Your task to perform on an android device: allow cookies in the chrome app Image 0: 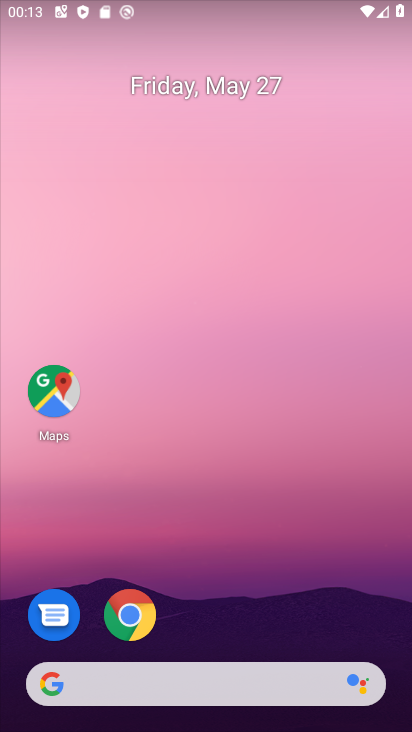
Step 0: drag from (354, 250) to (353, 204)
Your task to perform on an android device: allow cookies in the chrome app Image 1: 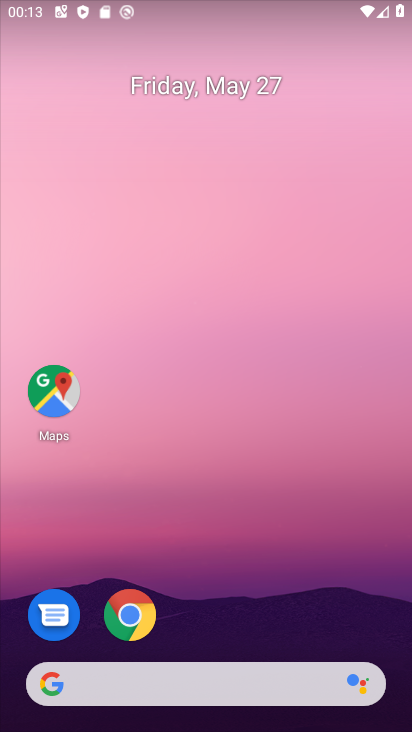
Step 1: drag from (365, 644) to (359, 157)
Your task to perform on an android device: allow cookies in the chrome app Image 2: 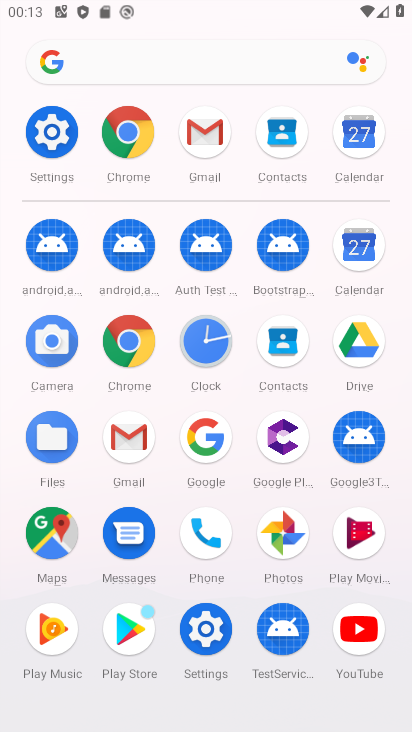
Step 2: click (142, 355)
Your task to perform on an android device: allow cookies in the chrome app Image 3: 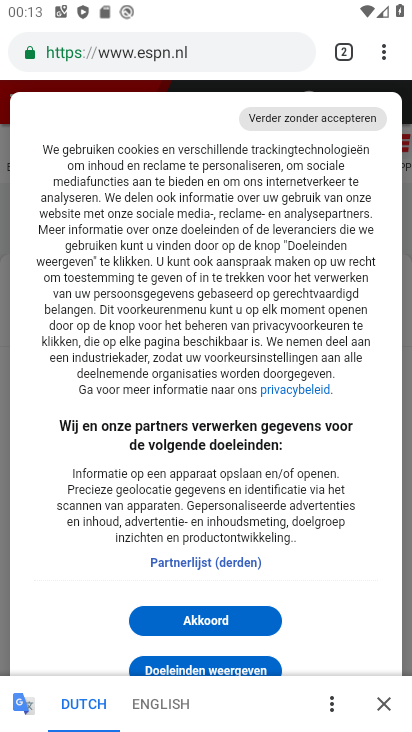
Step 3: click (380, 53)
Your task to perform on an android device: allow cookies in the chrome app Image 4: 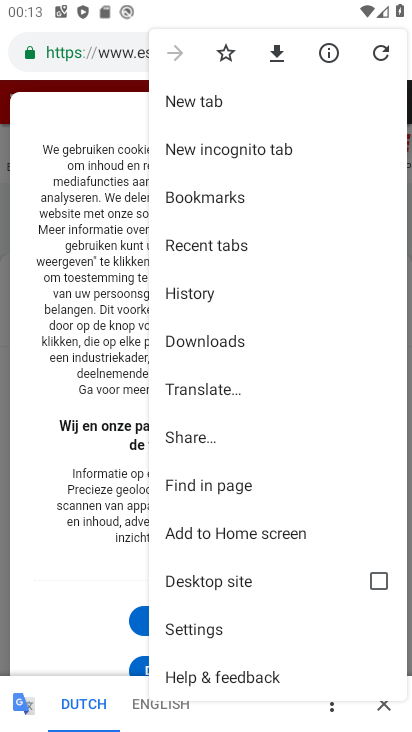
Step 4: drag from (338, 477) to (344, 405)
Your task to perform on an android device: allow cookies in the chrome app Image 5: 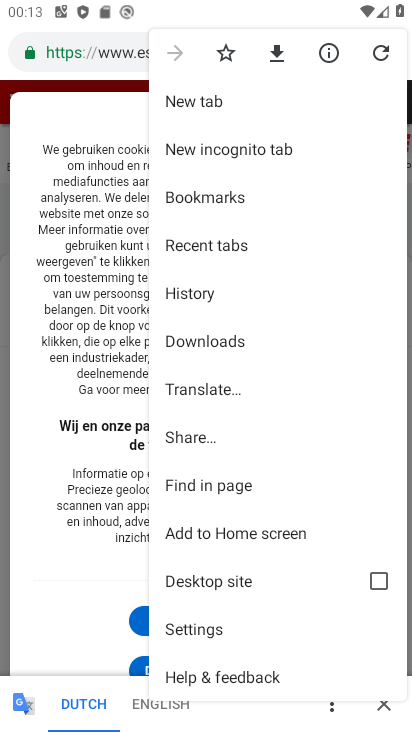
Step 5: click (240, 632)
Your task to perform on an android device: allow cookies in the chrome app Image 6: 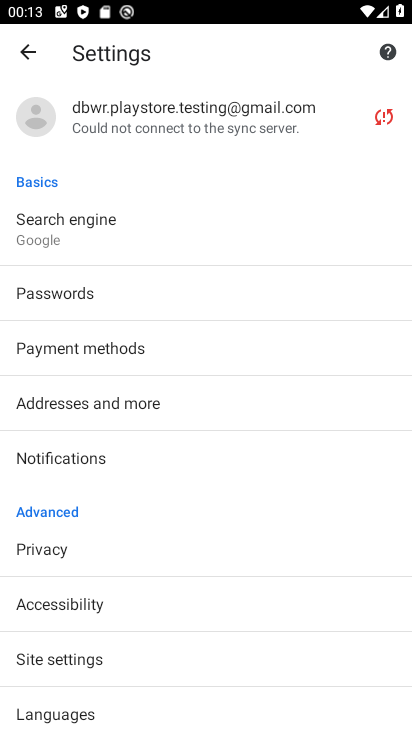
Step 6: drag from (251, 607) to (255, 525)
Your task to perform on an android device: allow cookies in the chrome app Image 7: 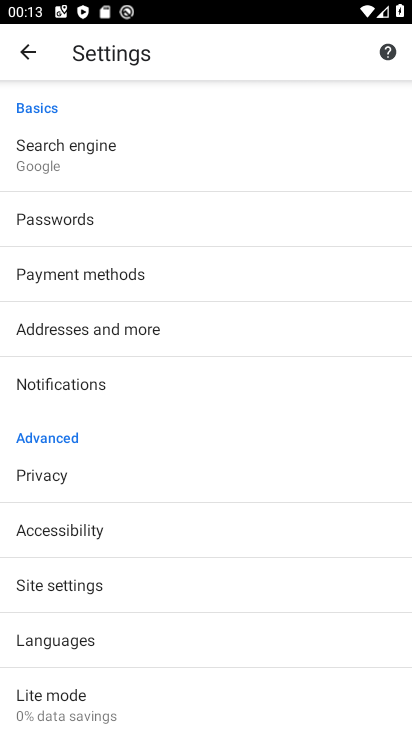
Step 7: drag from (248, 565) to (258, 426)
Your task to perform on an android device: allow cookies in the chrome app Image 8: 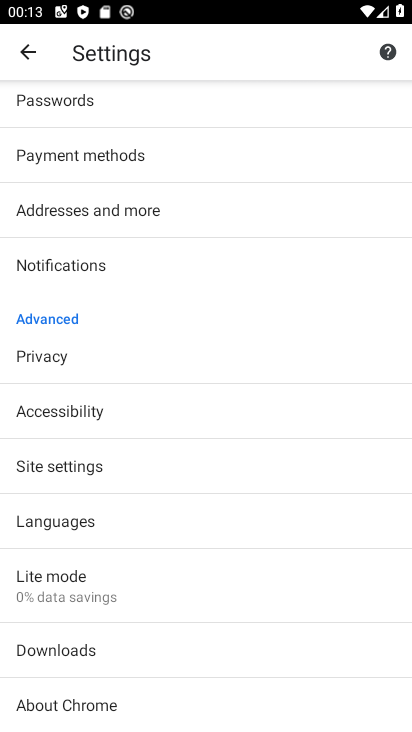
Step 8: drag from (276, 608) to (291, 422)
Your task to perform on an android device: allow cookies in the chrome app Image 9: 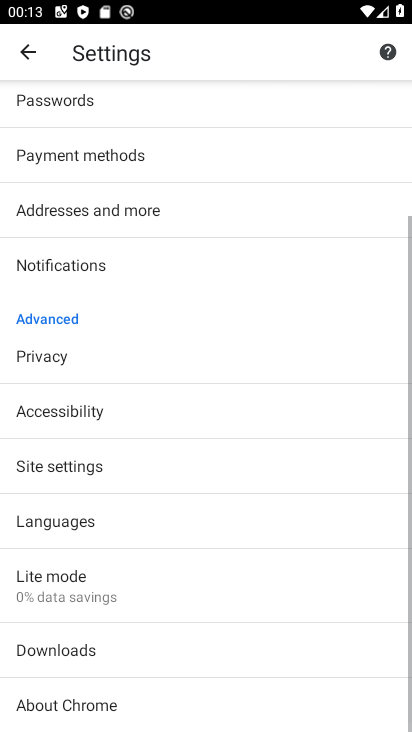
Step 9: drag from (307, 337) to (309, 480)
Your task to perform on an android device: allow cookies in the chrome app Image 10: 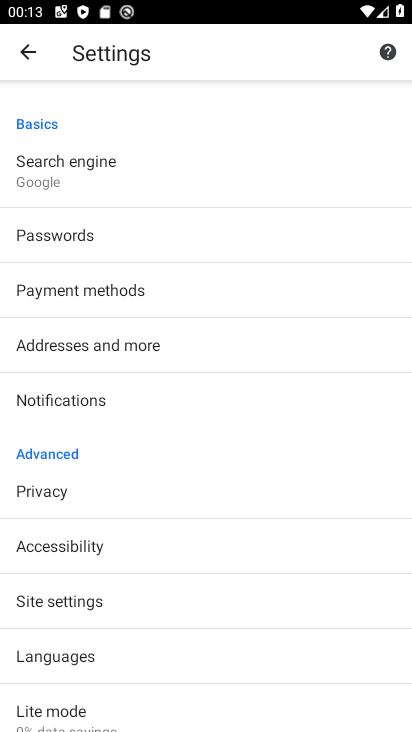
Step 10: click (225, 601)
Your task to perform on an android device: allow cookies in the chrome app Image 11: 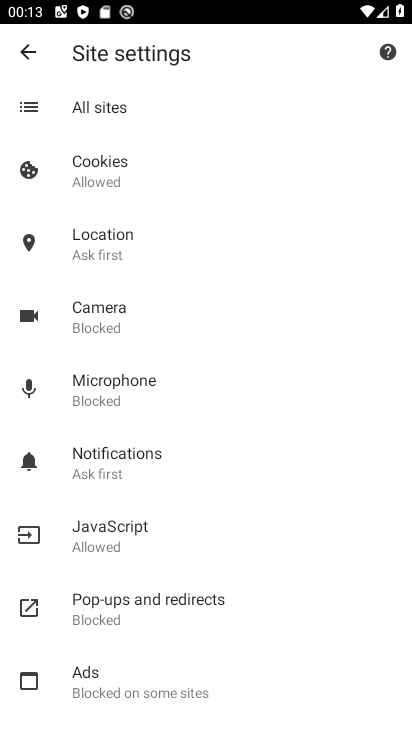
Step 11: click (238, 178)
Your task to perform on an android device: allow cookies in the chrome app Image 12: 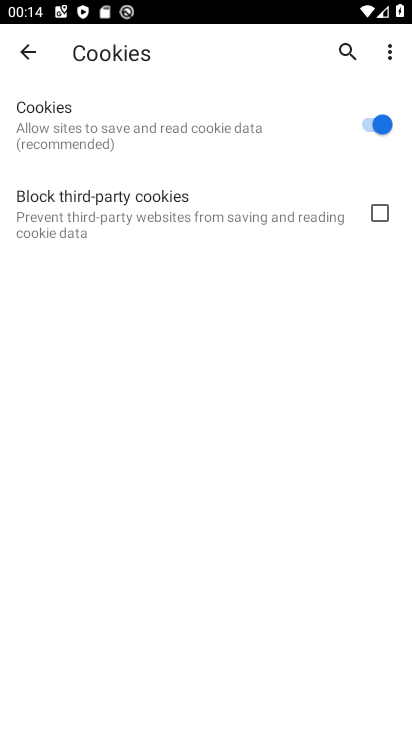
Step 12: task complete